Your task to perform on an android device: show emergency info Image 0: 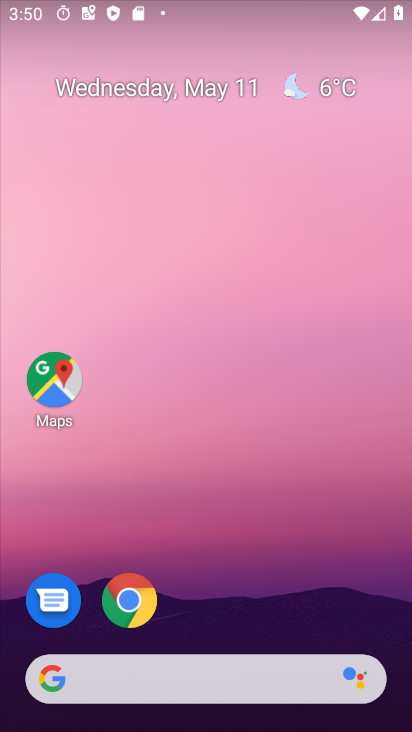
Step 0: drag from (315, 665) to (159, 188)
Your task to perform on an android device: show emergency info Image 1: 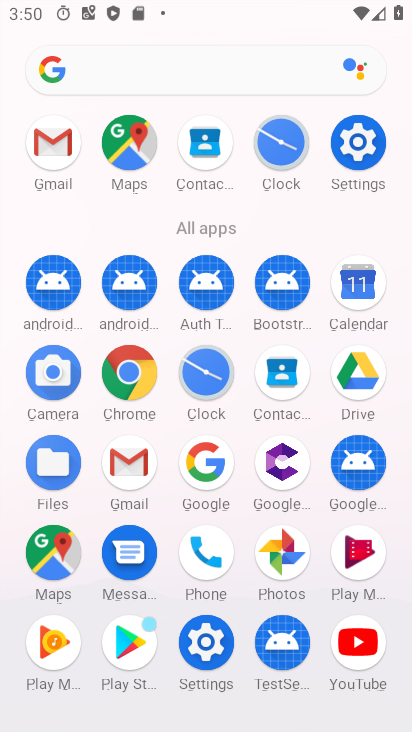
Step 1: click (365, 140)
Your task to perform on an android device: show emergency info Image 2: 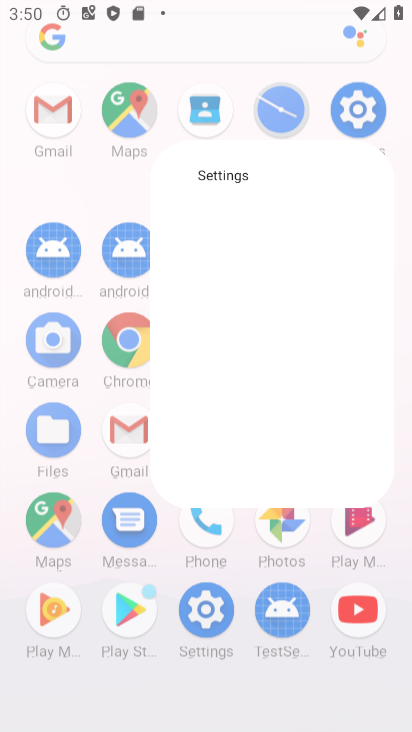
Step 2: click (357, 145)
Your task to perform on an android device: show emergency info Image 3: 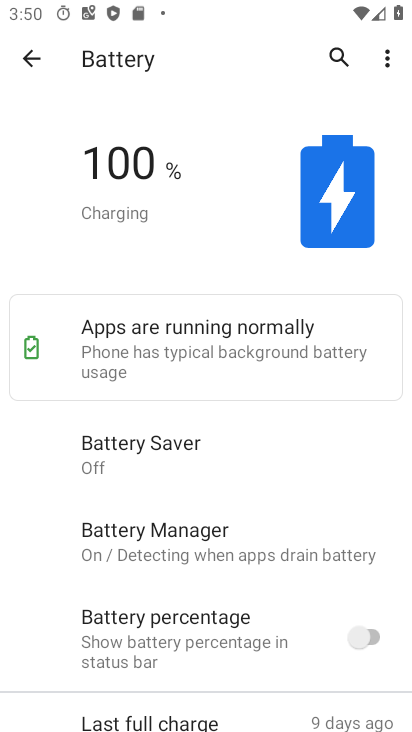
Step 3: click (31, 76)
Your task to perform on an android device: show emergency info Image 4: 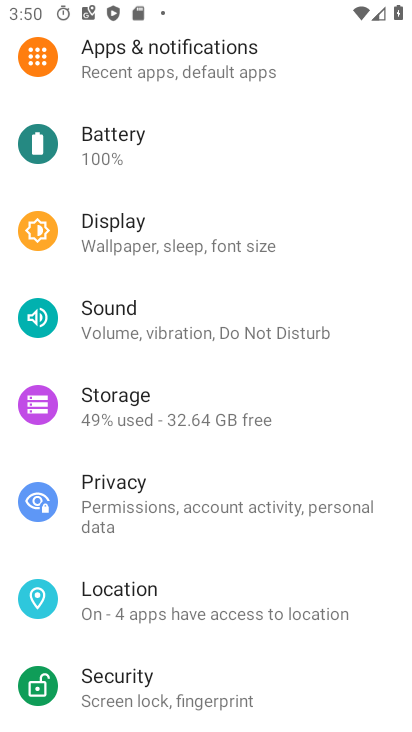
Step 4: drag from (192, 456) to (154, 213)
Your task to perform on an android device: show emergency info Image 5: 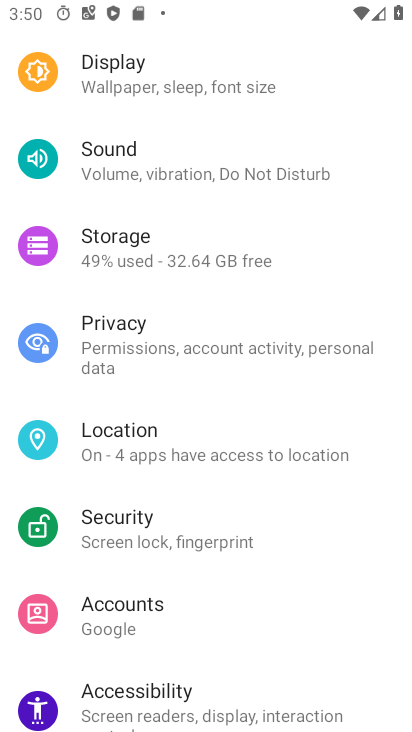
Step 5: drag from (204, 449) to (184, 206)
Your task to perform on an android device: show emergency info Image 6: 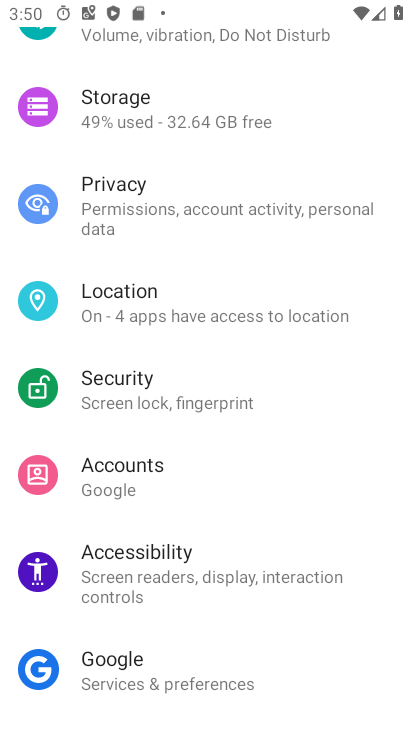
Step 6: drag from (260, 533) to (246, 313)
Your task to perform on an android device: show emergency info Image 7: 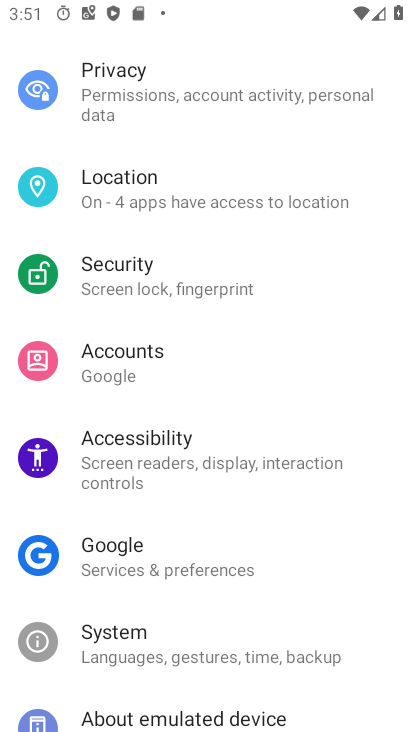
Step 7: drag from (229, 628) to (181, 289)
Your task to perform on an android device: show emergency info Image 8: 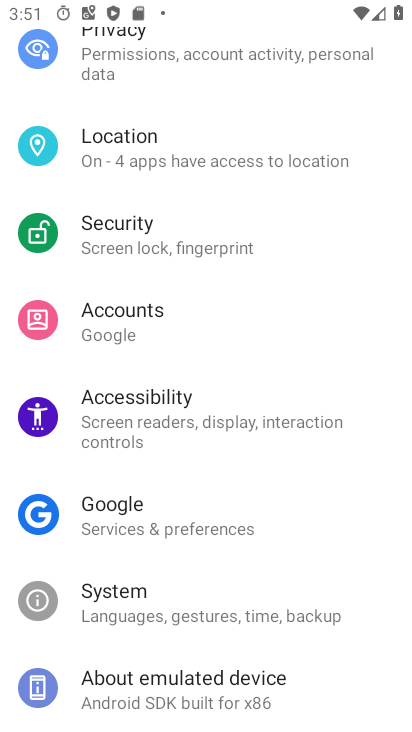
Step 8: drag from (178, 521) to (161, 37)
Your task to perform on an android device: show emergency info Image 9: 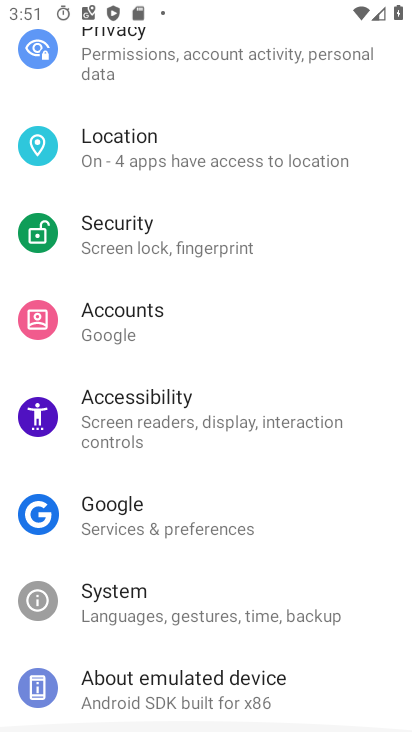
Step 9: drag from (183, 460) to (132, 133)
Your task to perform on an android device: show emergency info Image 10: 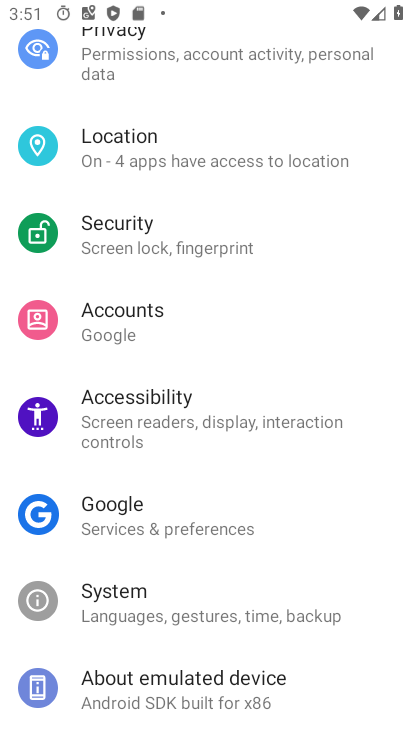
Step 10: drag from (173, 646) to (85, 358)
Your task to perform on an android device: show emergency info Image 11: 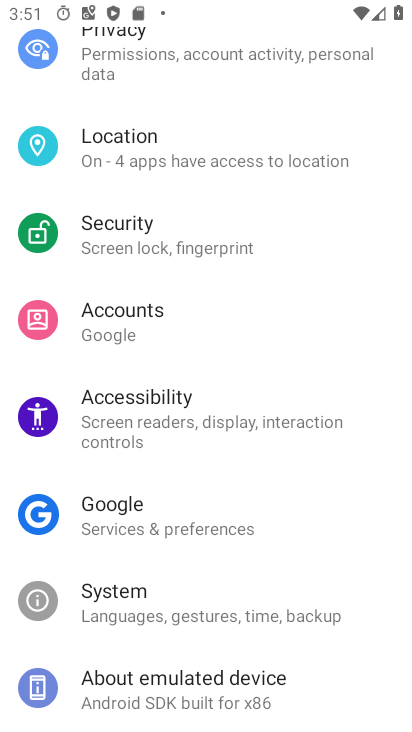
Step 11: drag from (199, 595) to (137, 149)
Your task to perform on an android device: show emergency info Image 12: 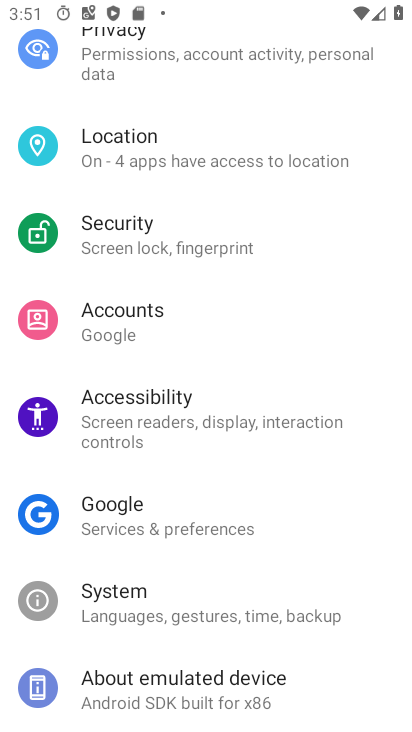
Step 12: drag from (181, 512) to (214, 117)
Your task to perform on an android device: show emergency info Image 13: 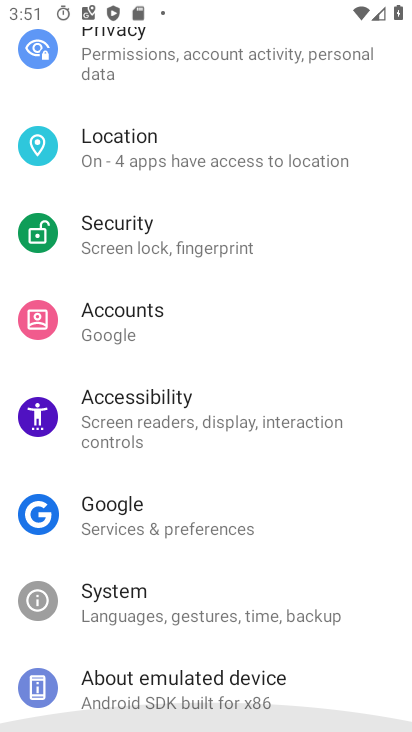
Step 13: drag from (178, 542) to (161, 14)
Your task to perform on an android device: show emergency info Image 14: 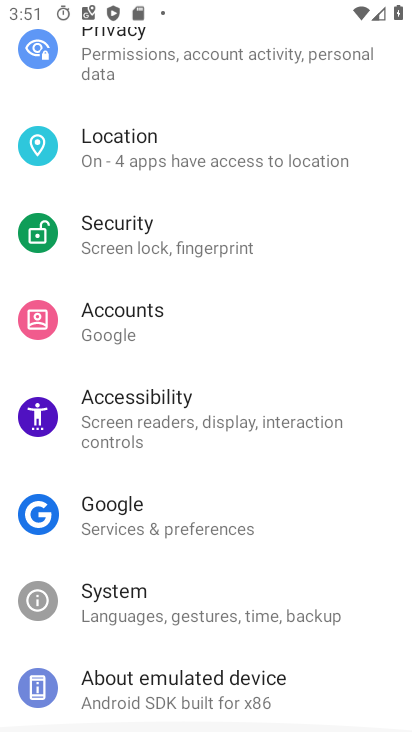
Step 14: click (166, 695)
Your task to perform on an android device: show emergency info Image 15: 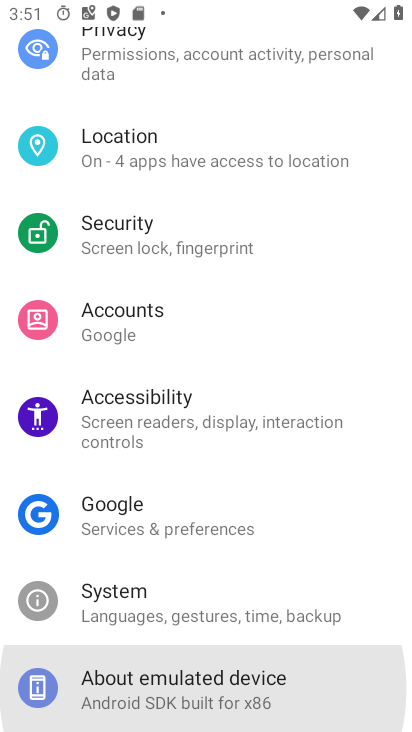
Step 15: click (166, 695)
Your task to perform on an android device: show emergency info Image 16: 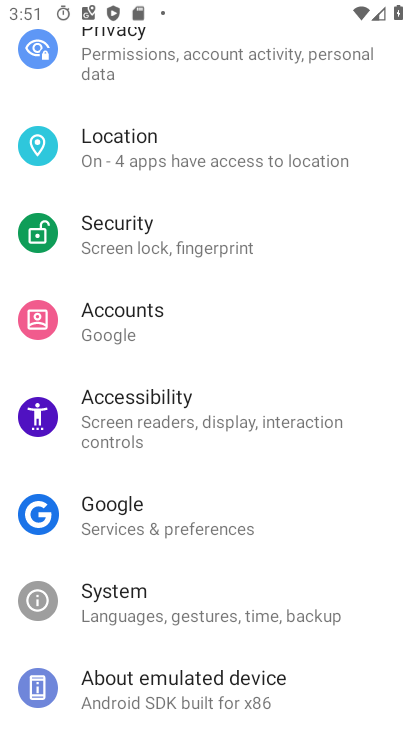
Step 16: click (166, 695)
Your task to perform on an android device: show emergency info Image 17: 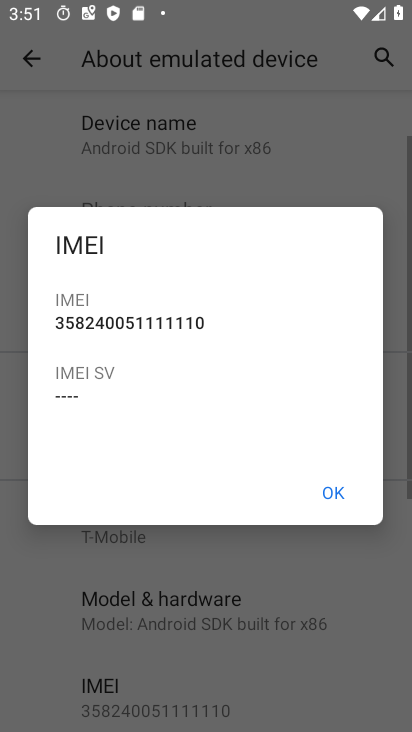
Step 17: click (368, 466)
Your task to perform on an android device: show emergency info Image 18: 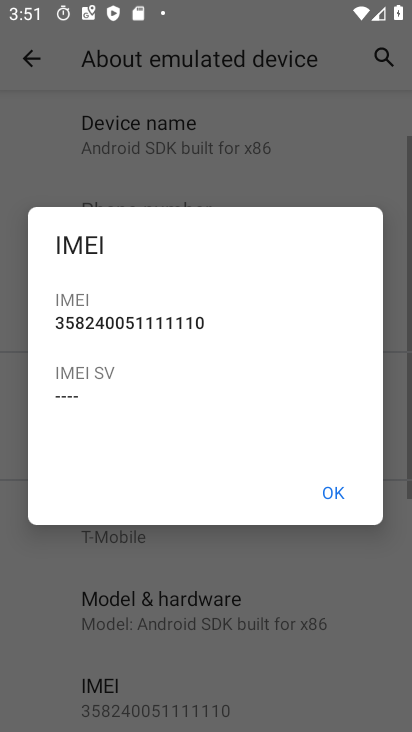
Step 18: click (326, 498)
Your task to perform on an android device: show emergency info Image 19: 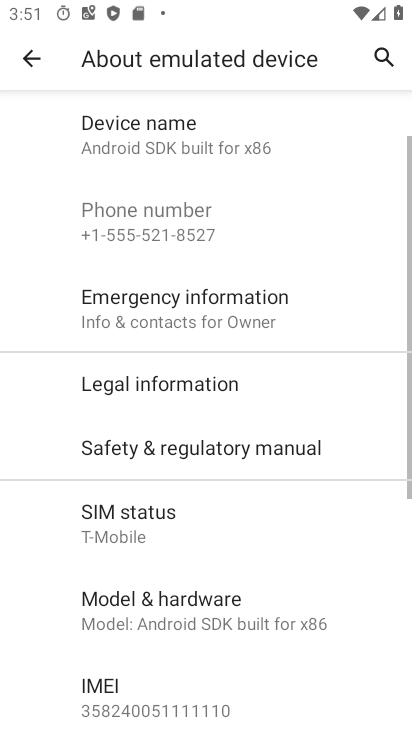
Step 19: click (171, 321)
Your task to perform on an android device: show emergency info Image 20: 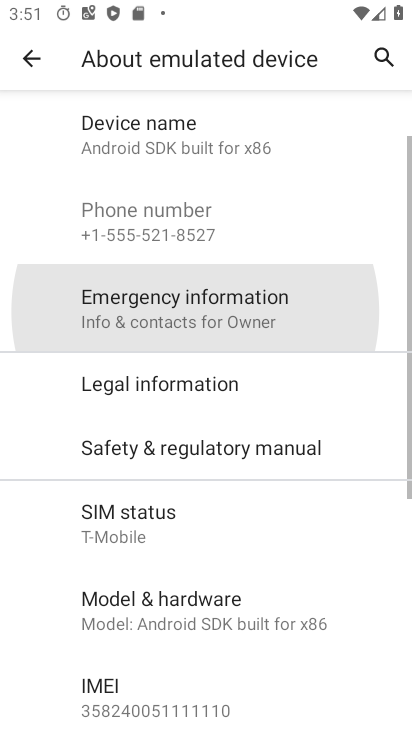
Step 20: click (173, 320)
Your task to perform on an android device: show emergency info Image 21: 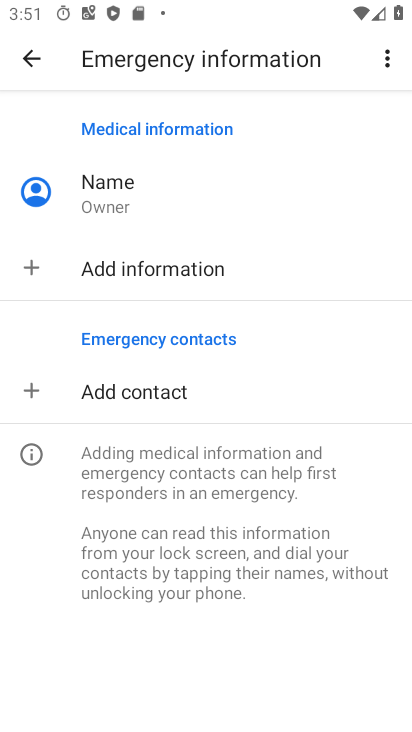
Step 21: task complete